Your task to perform on an android device: Is it going to rain this weekend? Image 0: 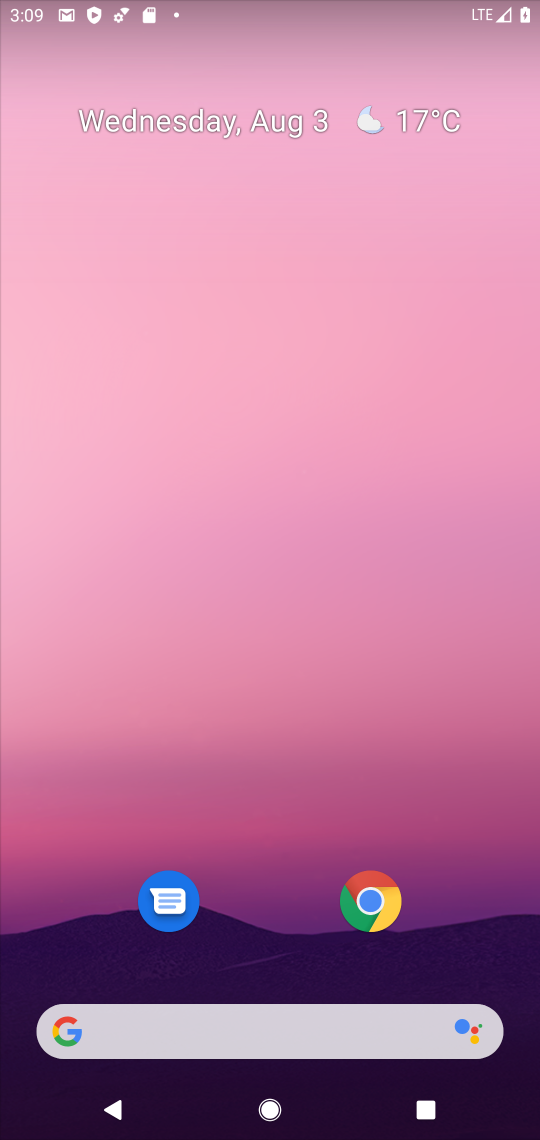
Step 0: drag from (247, 985) to (250, 409)
Your task to perform on an android device: Is it going to rain this weekend? Image 1: 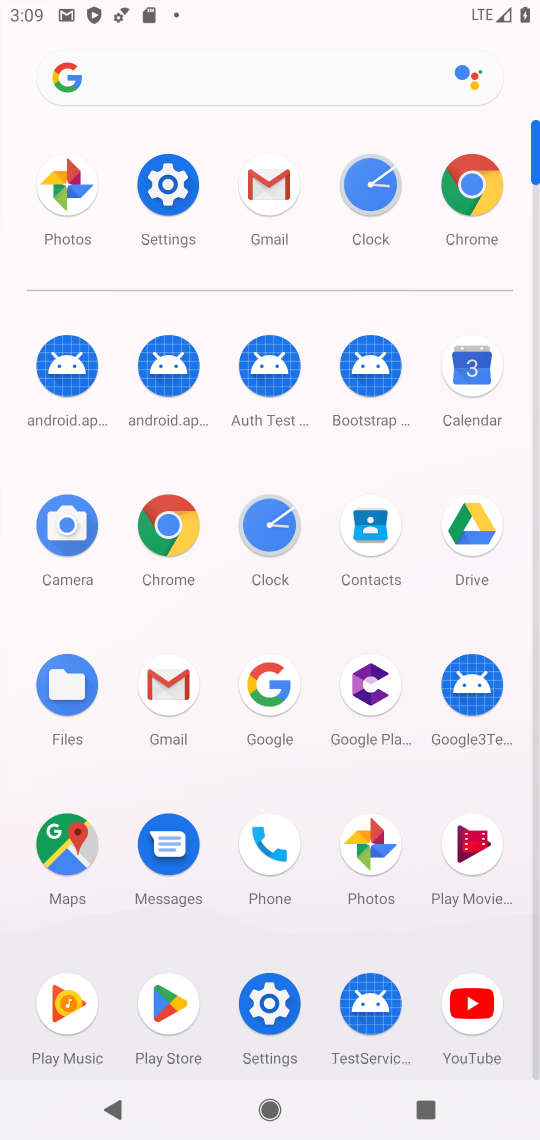
Step 1: click (172, 503)
Your task to perform on an android device: Is it going to rain this weekend? Image 2: 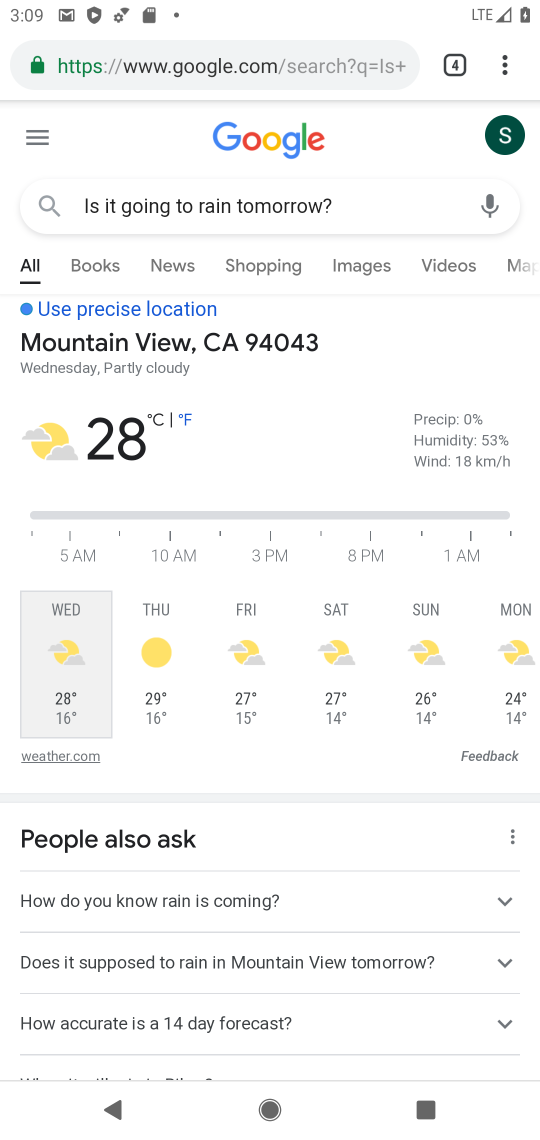
Step 2: click (509, 85)
Your task to perform on an android device: Is it going to rain this weekend? Image 3: 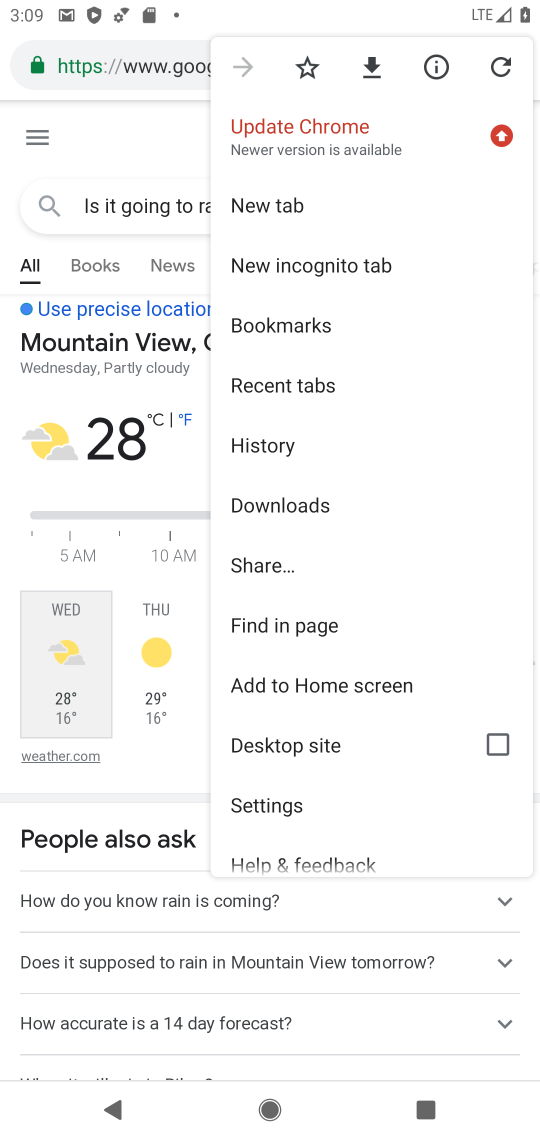
Step 3: click (278, 210)
Your task to perform on an android device: Is it going to rain this weekend? Image 4: 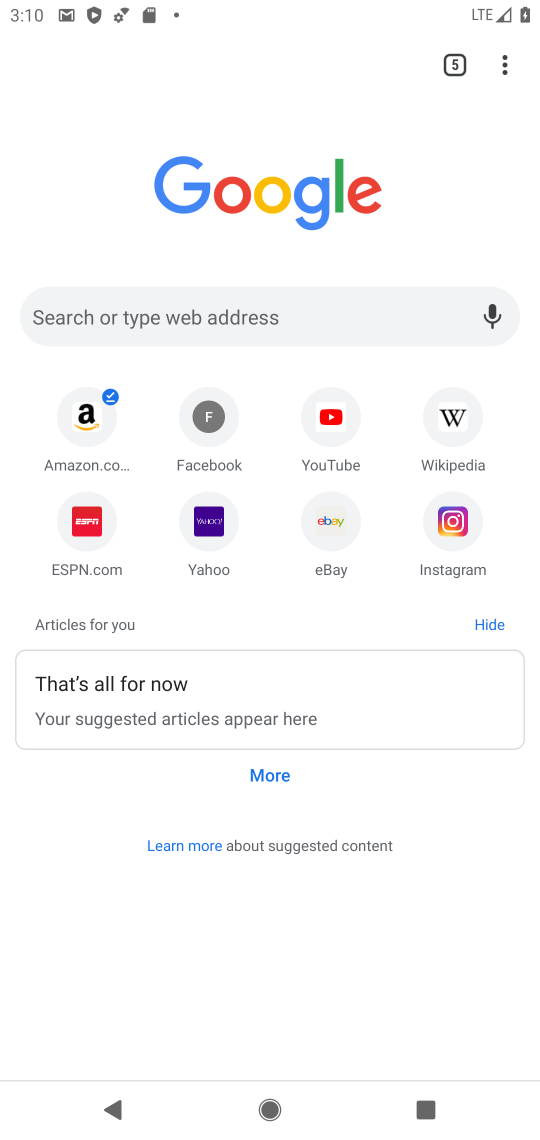
Step 4: click (310, 302)
Your task to perform on an android device: Is it going to rain this weekend? Image 5: 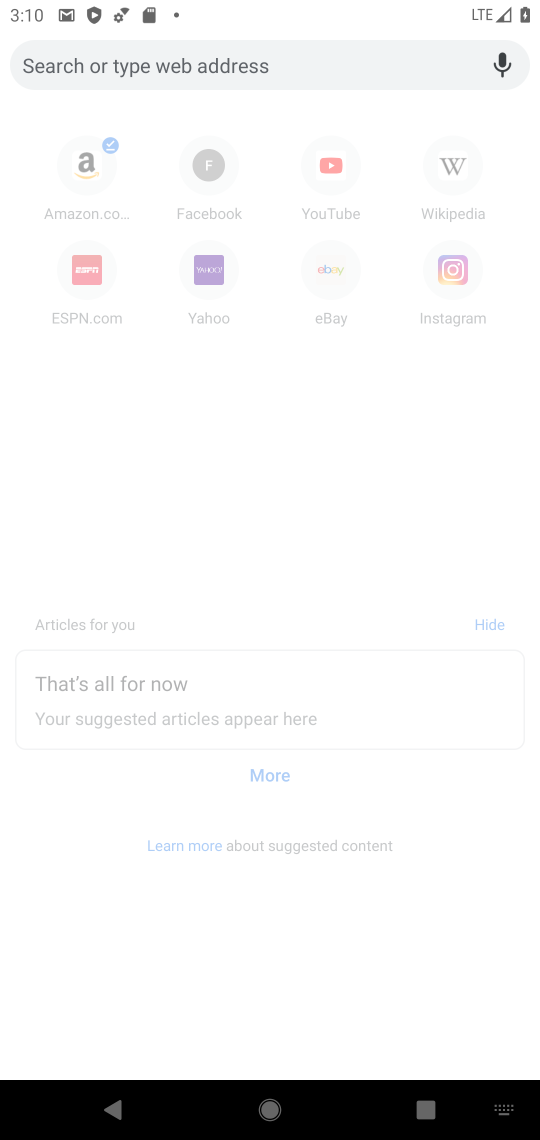
Step 5: type "Is it going to rain this weekend? "
Your task to perform on an android device: Is it going to rain this weekend? Image 6: 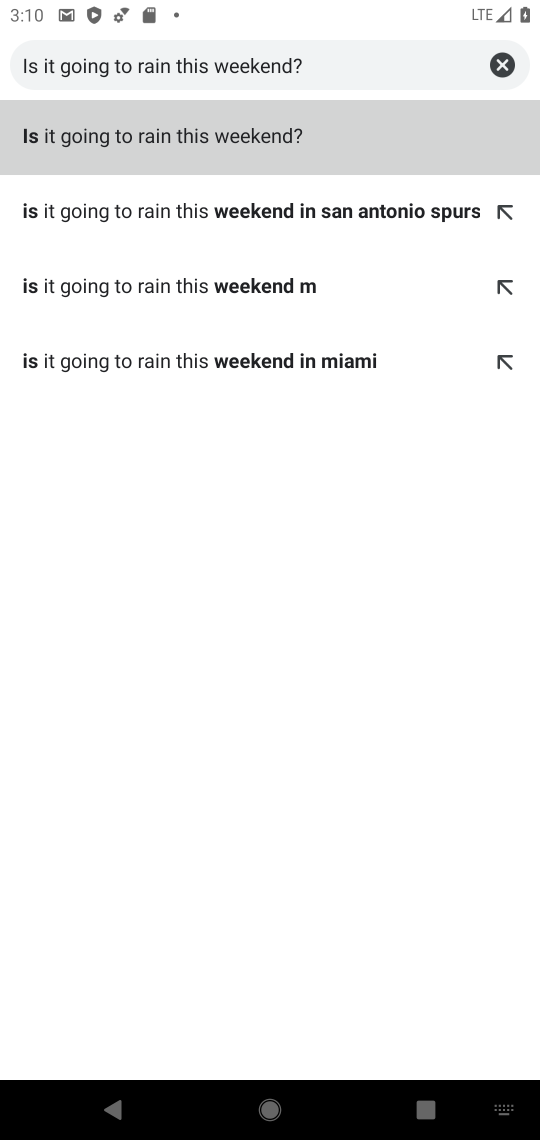
Step 6: click (232, 297)
Your task to perform on an android device: Is it going to rain this weekend? Image 7: 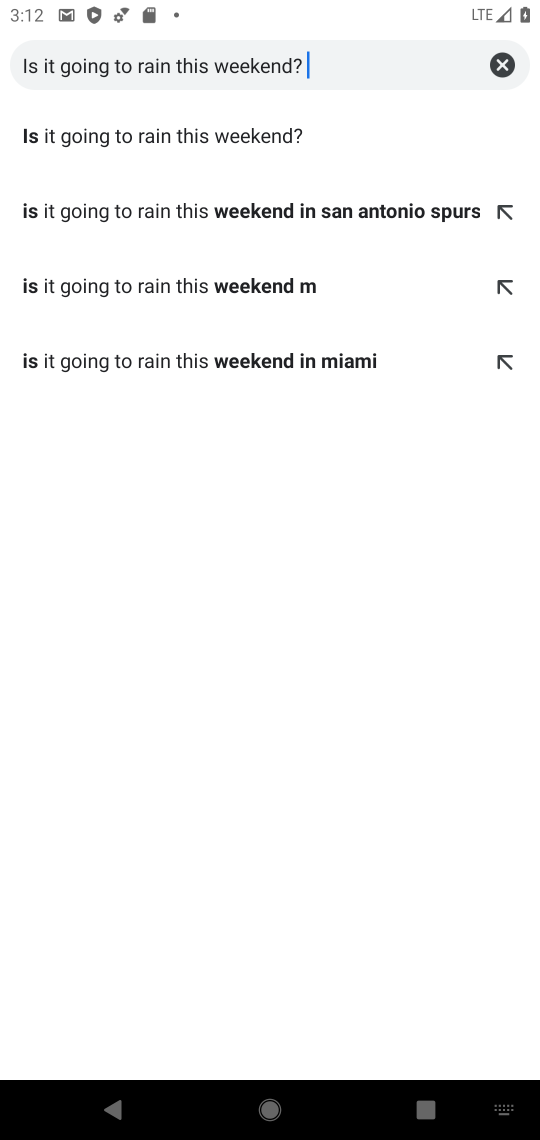
Step 7: click (256, 152)
Your task to perform on an android device: Is it going to rain this weekend? Image 8: 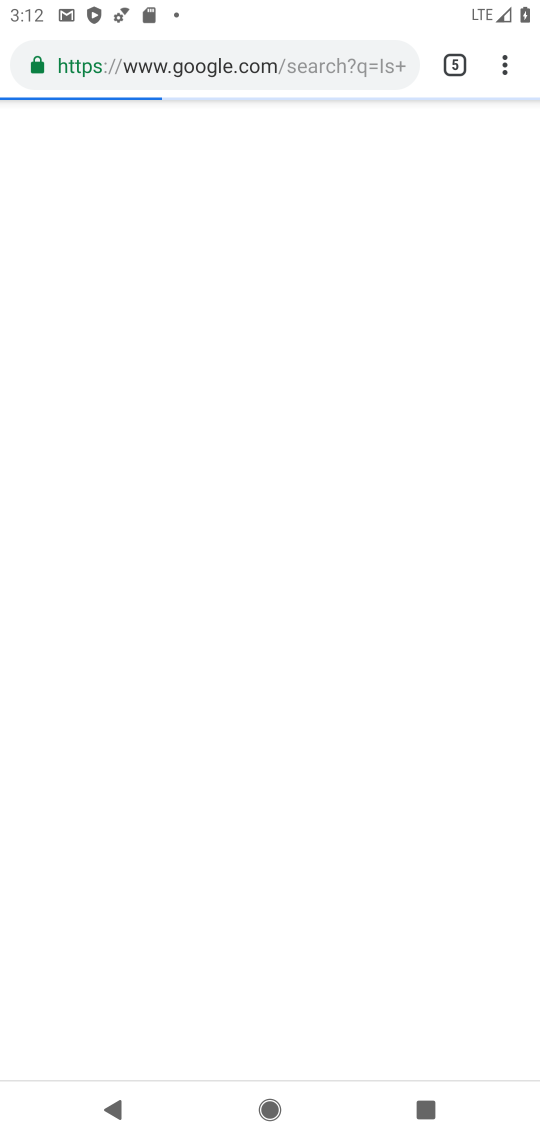
Step 8: task complete